Your task to perform on an android device: turn on the 24-hour format for clock Image 0: 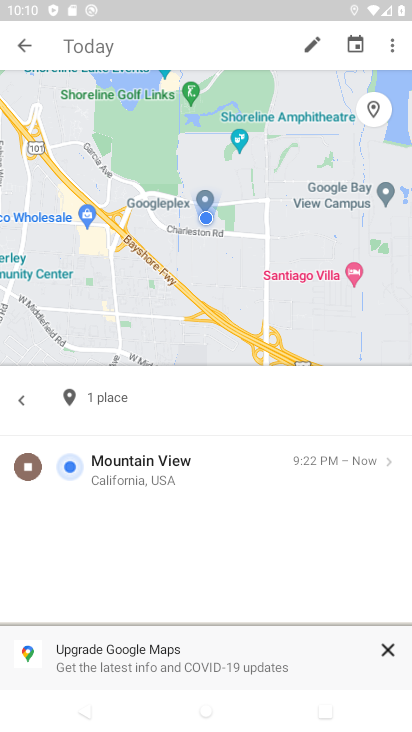
Step 0: press home button
Your task to perform on an android device: turn on the 24-hour format for clock Image 1: 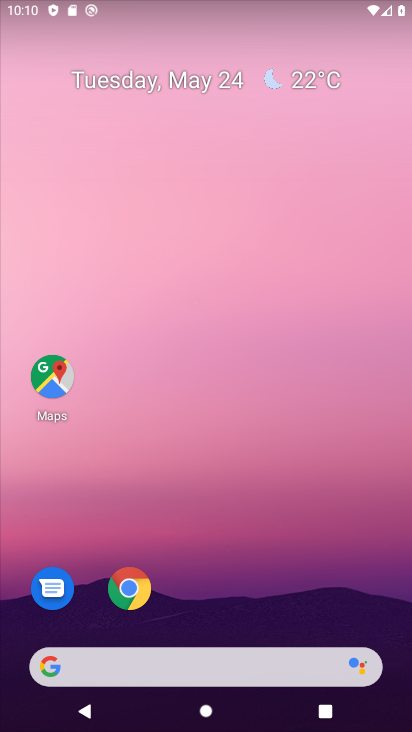
Step 1: drag from (304, 636) to (263, 221)
Your task to perform on an android device: turn on the 24-hour format for clock Image 2: 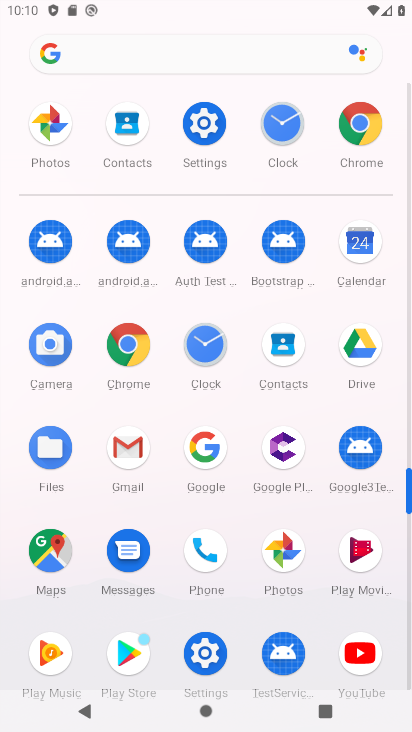
Step 2: click (278, 130)
Your task to perform on an android device: turn on the 24-hour format for clock Image 3: 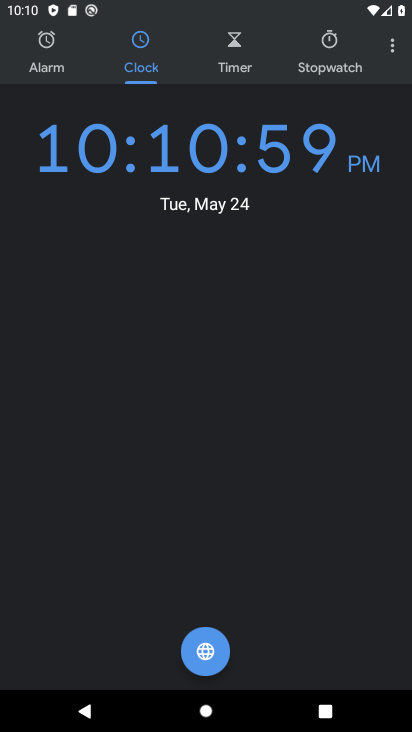
Step 3: click (400, 47)
Your task to perform on an android device: turn on the 24-hour format for clock Image 4: 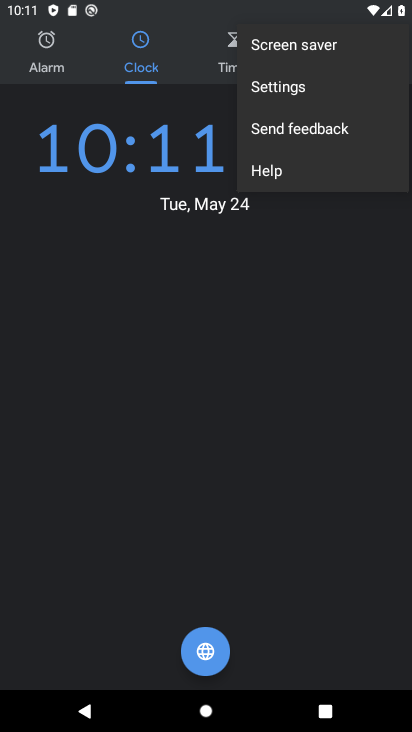
Step 4: click (273, 97)
Your task to perform on an android device: turn on the 24-hour format for clock Image 5: 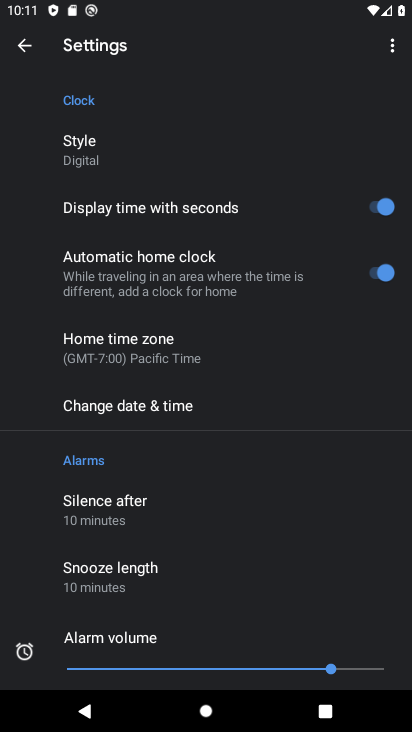
Step 5: click (211, 411)
Your task to perform on an android device: turn on the 24-hour format for clock Image 6: 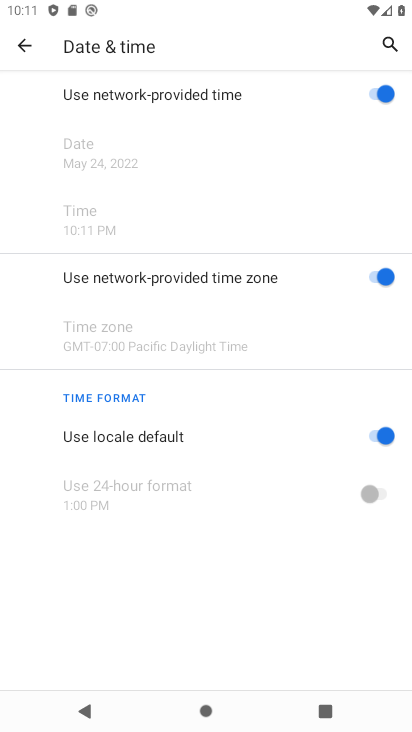
Step 6: click (378, 437)
Your task to perform on an android device: turn on the 24-hour format for clock Image 7: 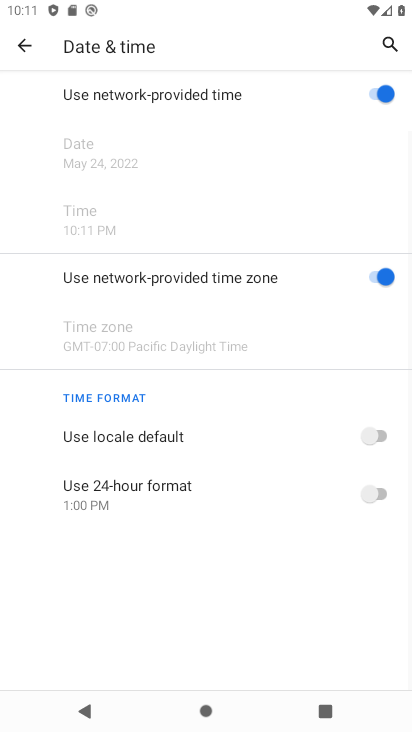
Step 7: click (378, 499)
Your task to perform on an android device: turn on the 24-hour format for clock Image 8: 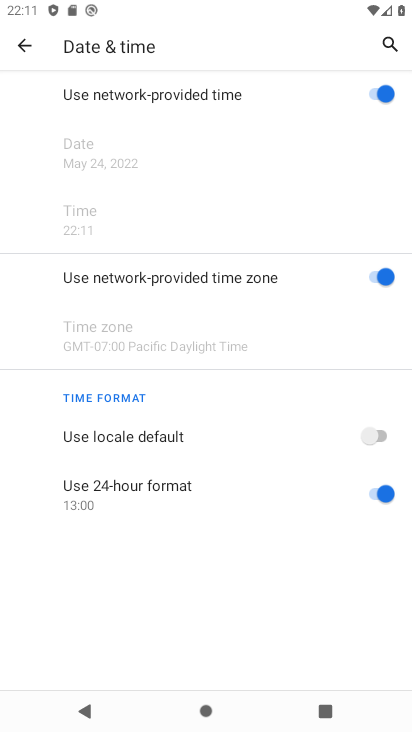
Step 8: task complete